Your task to perform on an android device: toggle pop-ups in chrome Image 0: 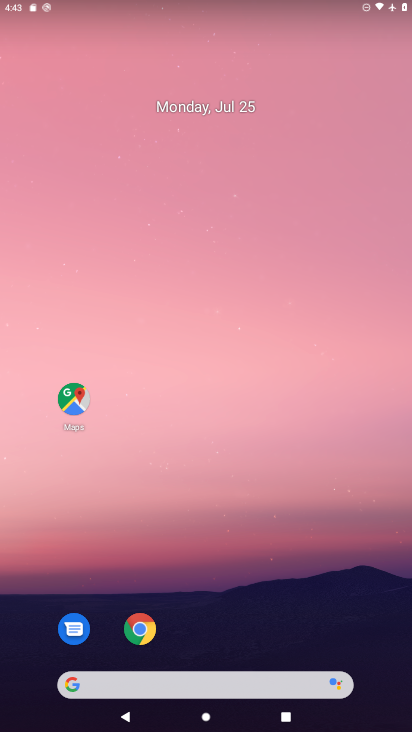
Step 0: drag from (315, 618) to (303, 3)
Your task to perform on an android device: toggle pop-ups in chrome Image 1: 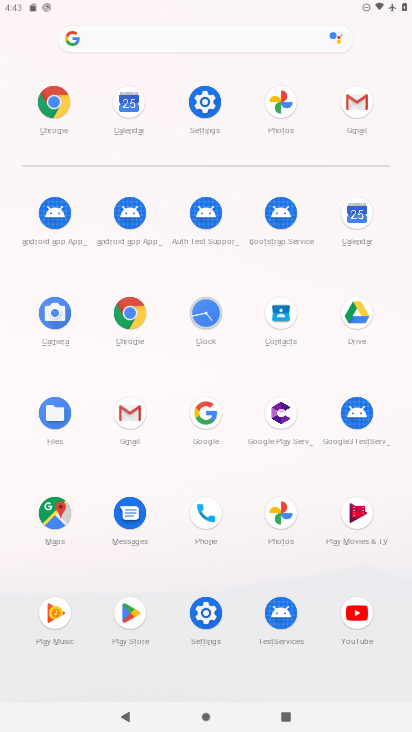
Step 1: click (139, 309)
Your task to perform on an android device: toggle pop-ups in chrome Image 2: 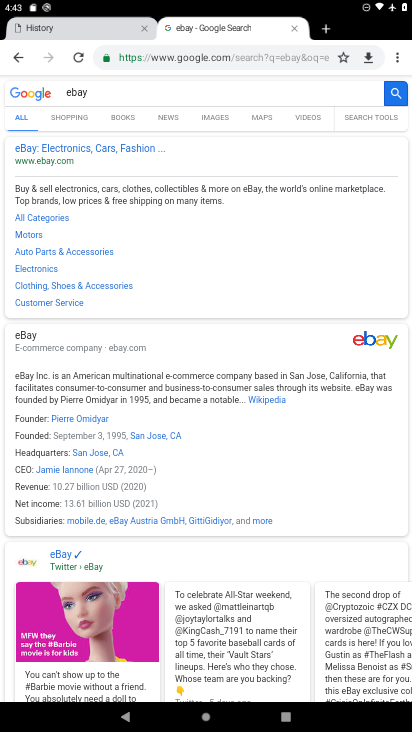
Step 2: click (401, 54)
Your task to perform on an android device: toggle pop-ups in chrome Image 3: 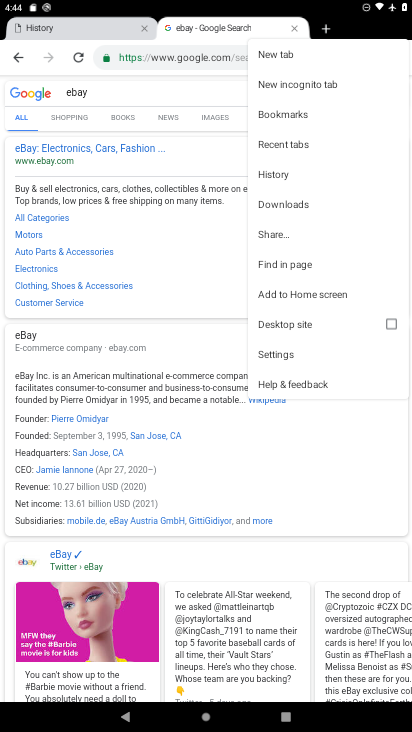
Step 3: click (288, 362)
Your task to perform on an android device: toggle pop-ups in chrome Image 4: 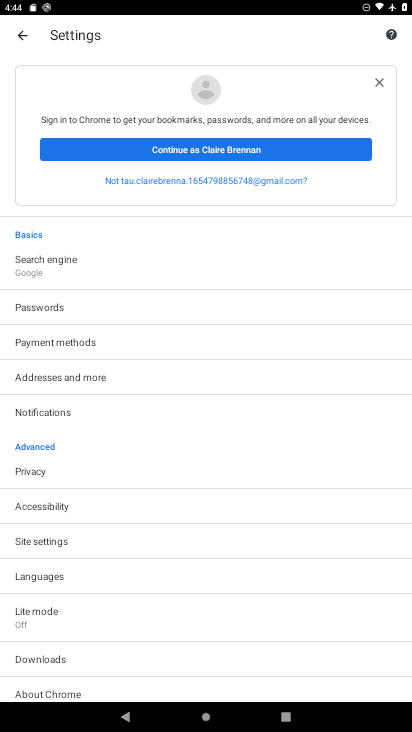
Step 4: click (75, 546)
Your task to perform on an android device: toggle pop-ups in chrome Image 5: 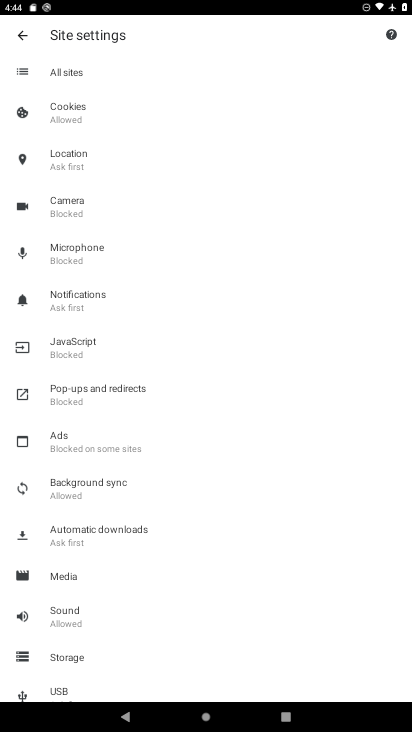
Step 5: click (93, 402)
Your task to perform on an android device: toggle pop-ups in chrome Image 6: 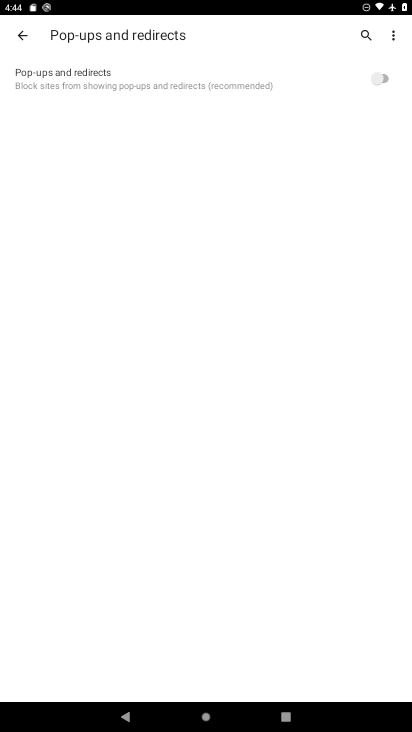
Step 6: click (385, 76)
Your task to perform on an android device: toggle pop-ups in chrome Image 7: 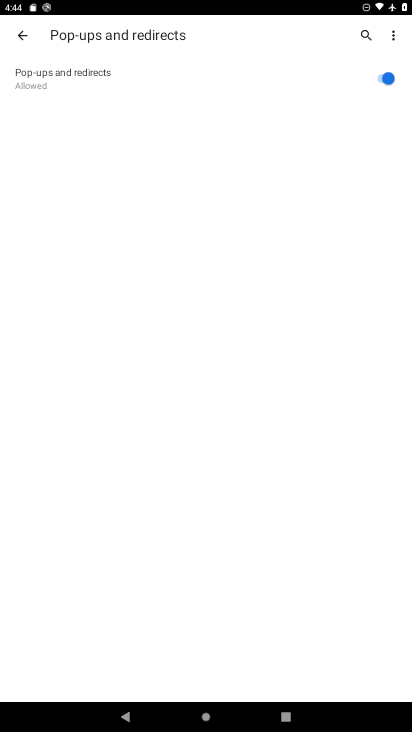
Step 7: task complete